Your task to perform on an android device: see sites visited before in the chrome app Image 0: 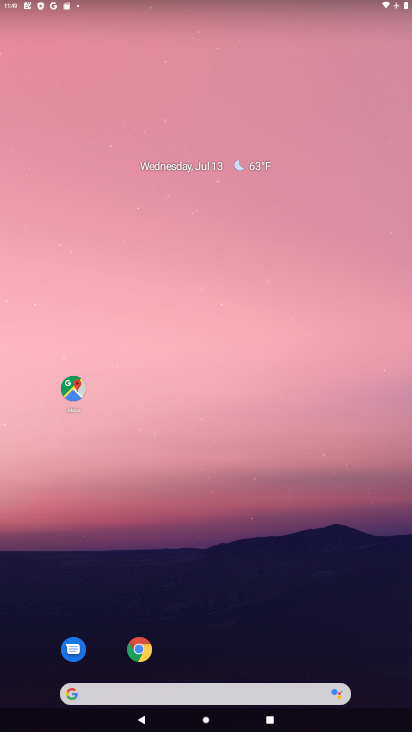
Step 0: drag from (230, 680) to (253, 285)
Your task to perform on an android device: see sites visited before in the chrome app Image 1: 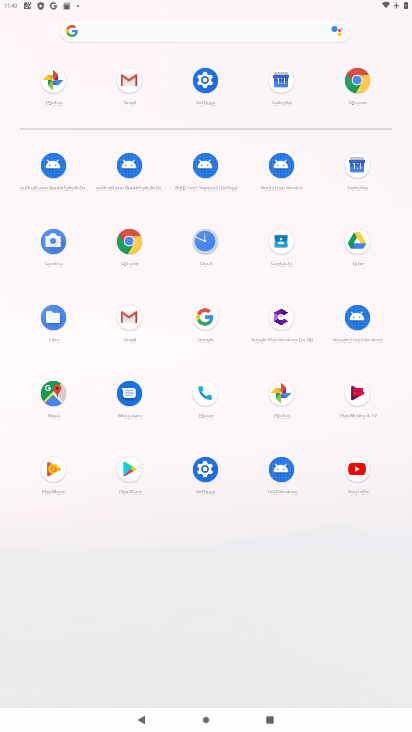
Step 1: click (352, 74)
Your task to perform on an android device: see sites visited before in the chrome app Image 2: 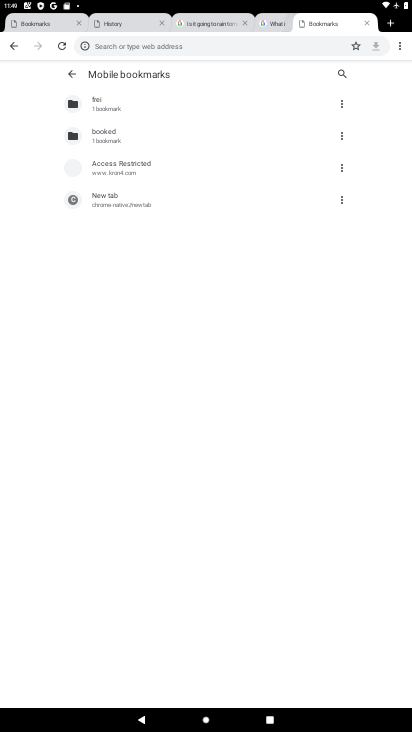
Step 2: task complete